Your task to perform on an android device: set the timer Image 0: 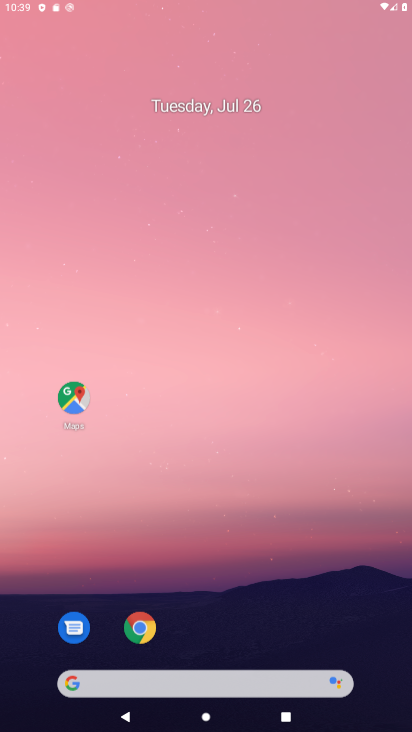
Step 0: drag from (335, 623) to (135, 37)
Your task to perform on an android device: set the timer Image 1: 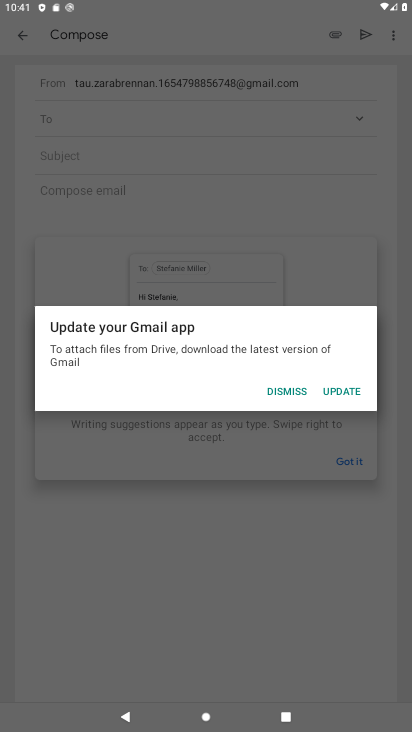
Step 1: press home button
Your task to perform on an android device: set the timer Image 2: 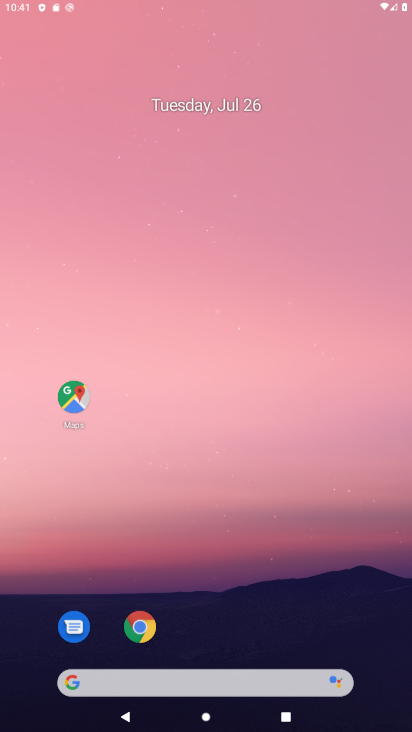
Step 2: drag from (367, 693) to (197, 29)
Your task to perform on an android device: set the timer Image 3: 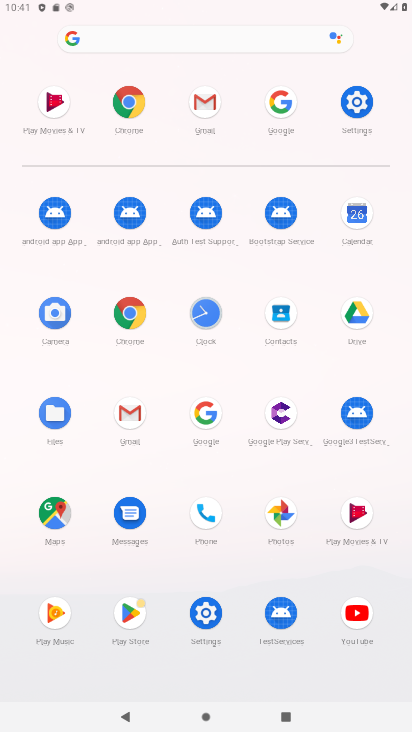
Step 3: click (216, 310)
Your task to perform on an android device: set the timer Image 4: 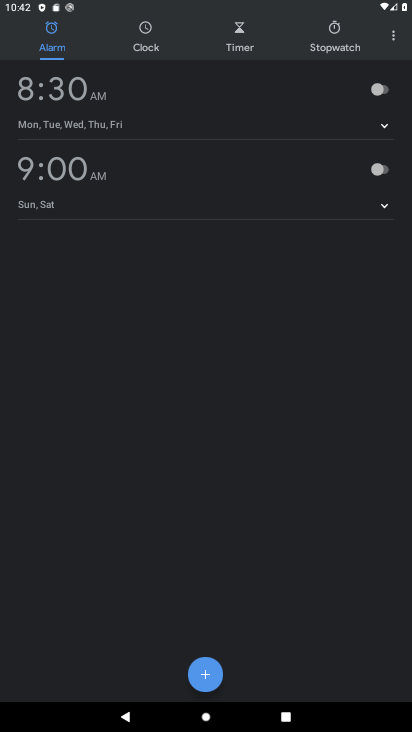
Step 4: click (230, 29)
Your task to perform on an android device: set the timer Image 5: 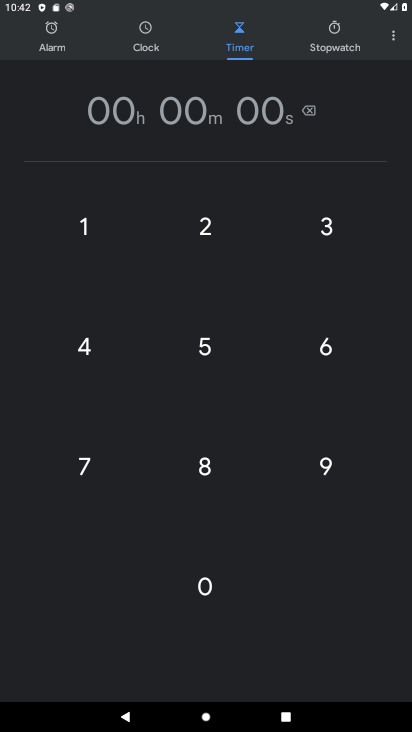
Step 5: click (88, 229)
Your task to perform on an android device: set the timer Image 6: 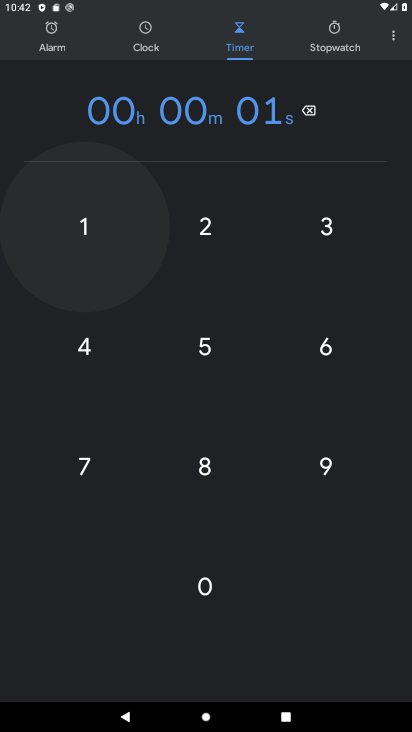
Step 6: click (88, 229)
Your task to perform on an android device: set the timer Image 7: 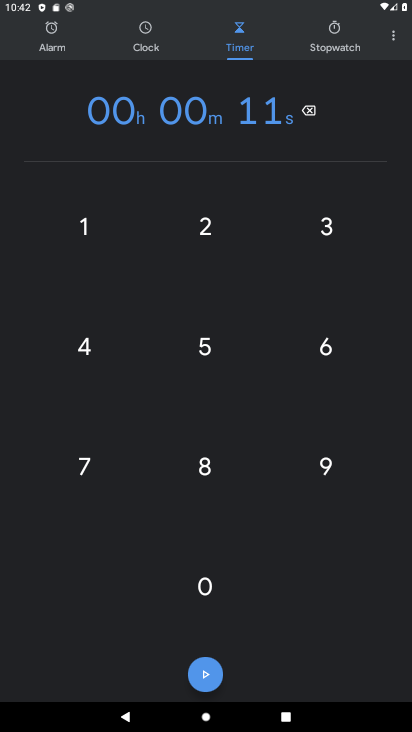
Step 7: click (89, 225)
Your task to perform on an android device: set the timer Image 8: 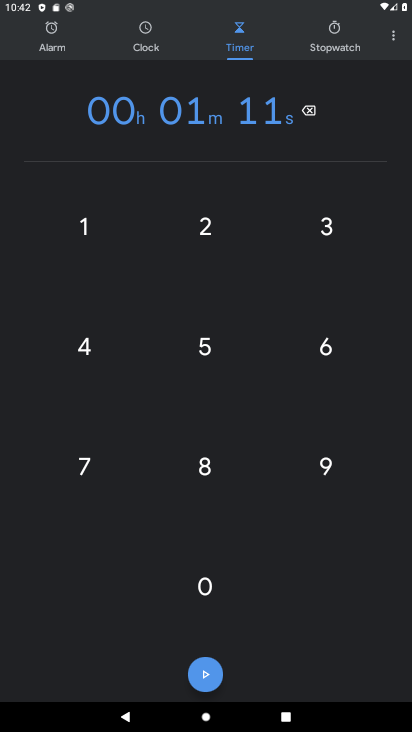
Step 8: click (89, 225)
Your task to perform on an android device: set the timer Image 9: 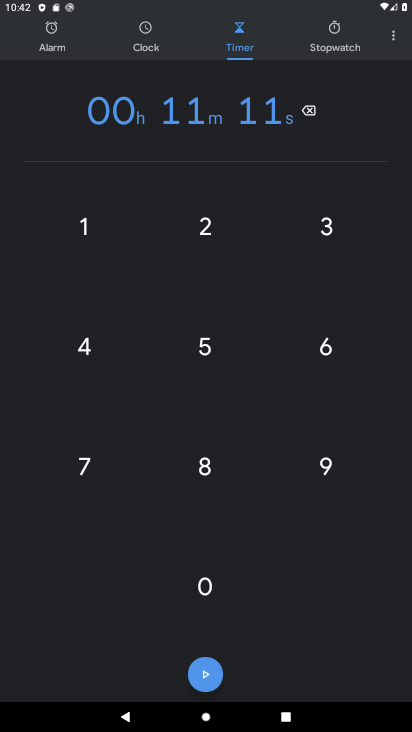
Step 9: click (89, 225)
Your task to perform on an android device: set the timer Image 10: 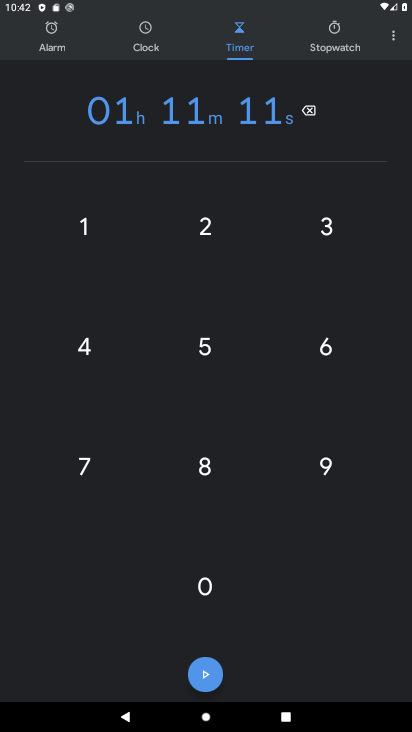
Step 10: task complete